Your task to perform on an android device: Search for a custom made wallet on Etsy Image 0: 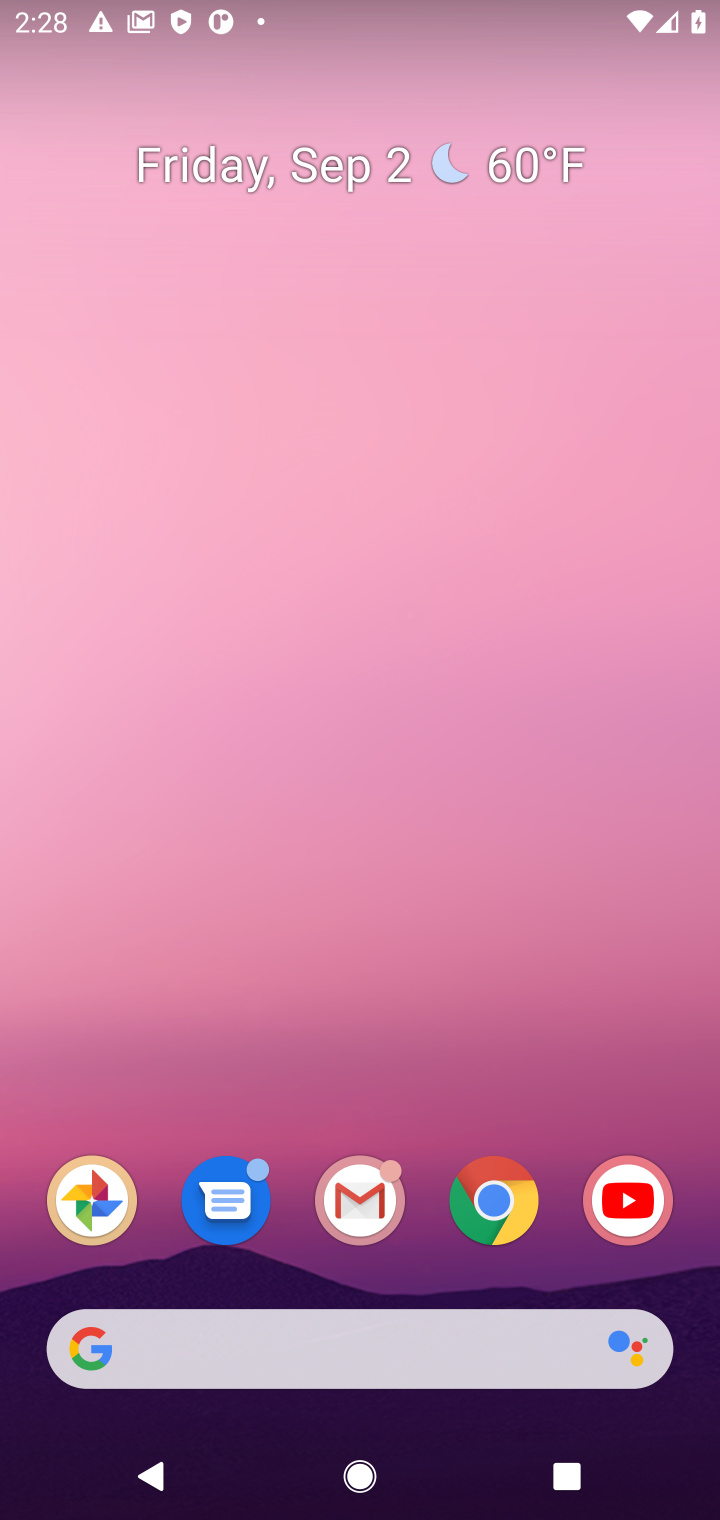
Step 0: click (495, 1199)
Your task to perform on an android device: Search for a custom made wallet on Etsy Image 1: 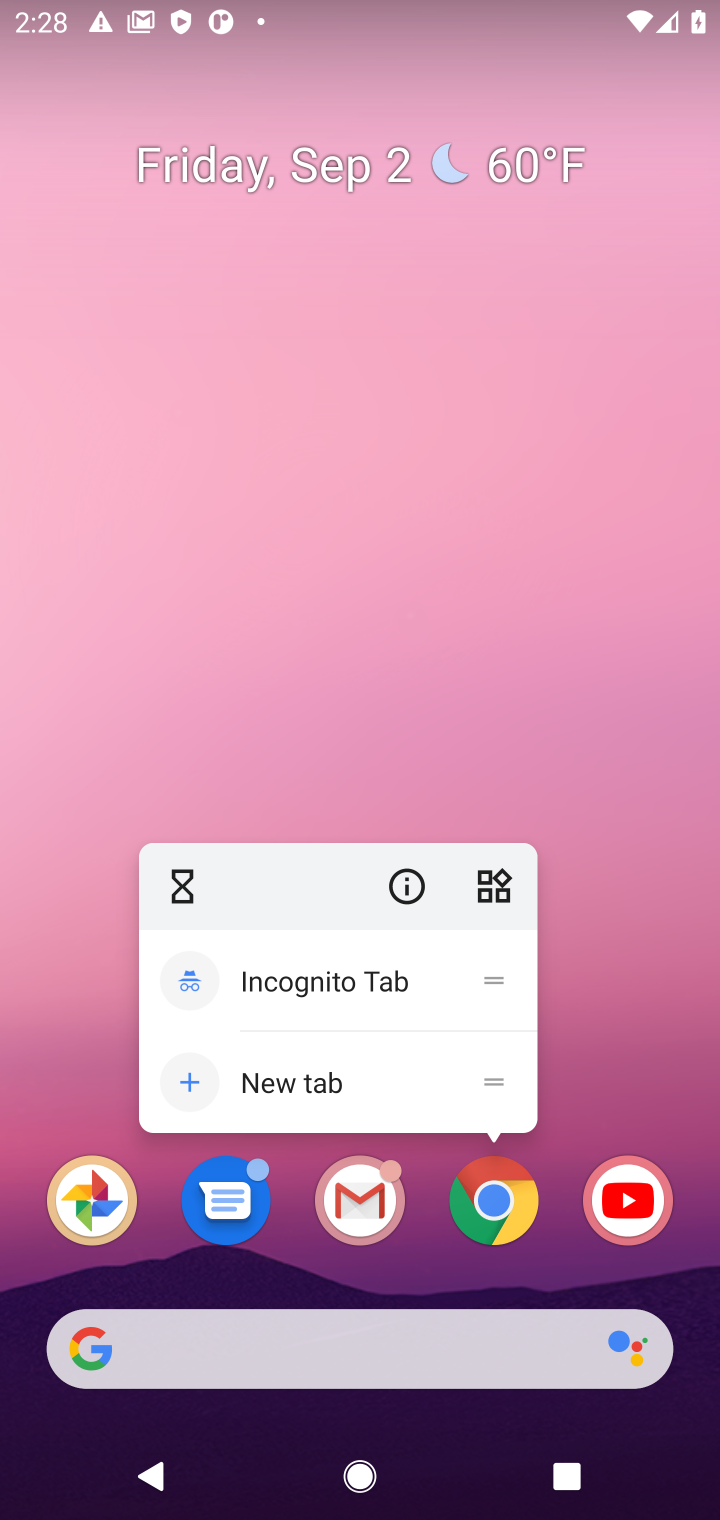
Step 1: click (495, 1207)
Your task to perform on an android device: Search for a custom made wallet on Etsy Image 2: 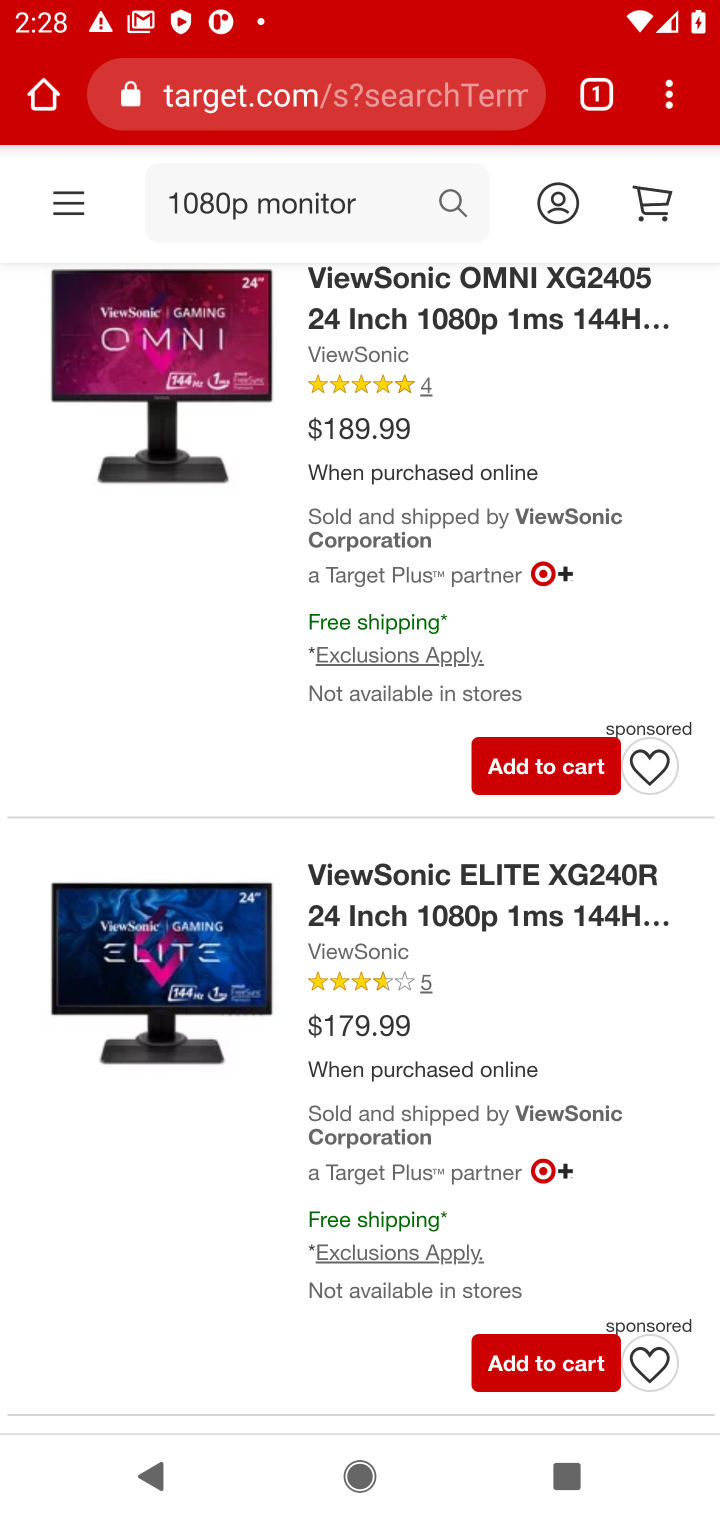
Step 2: click (406, 100)
Your task to perform on an android device: Search for a custom made wallet on Etsy Image 3: 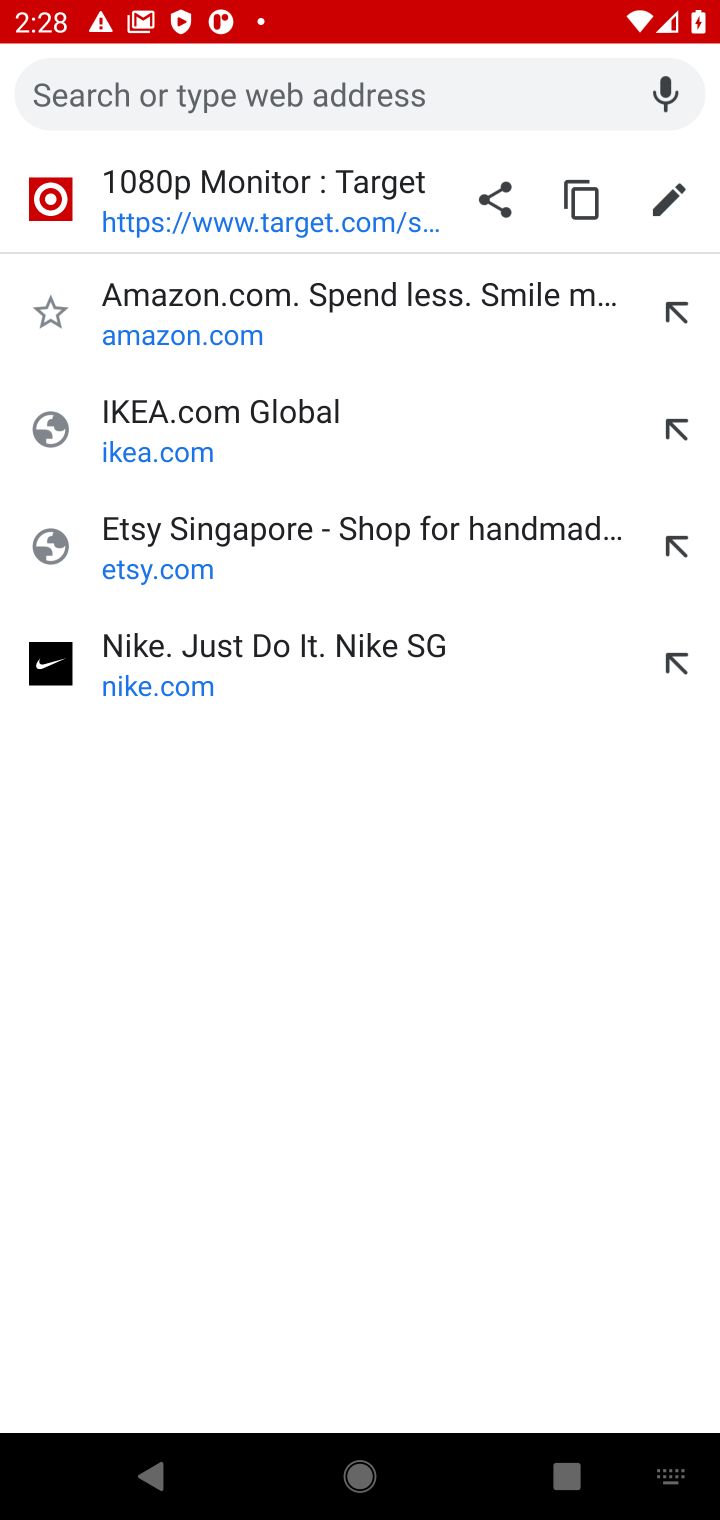
Step 3: type "Etsy"
Your task to perform on an android device: Search for a custom made wallet on Etsy Image 4: 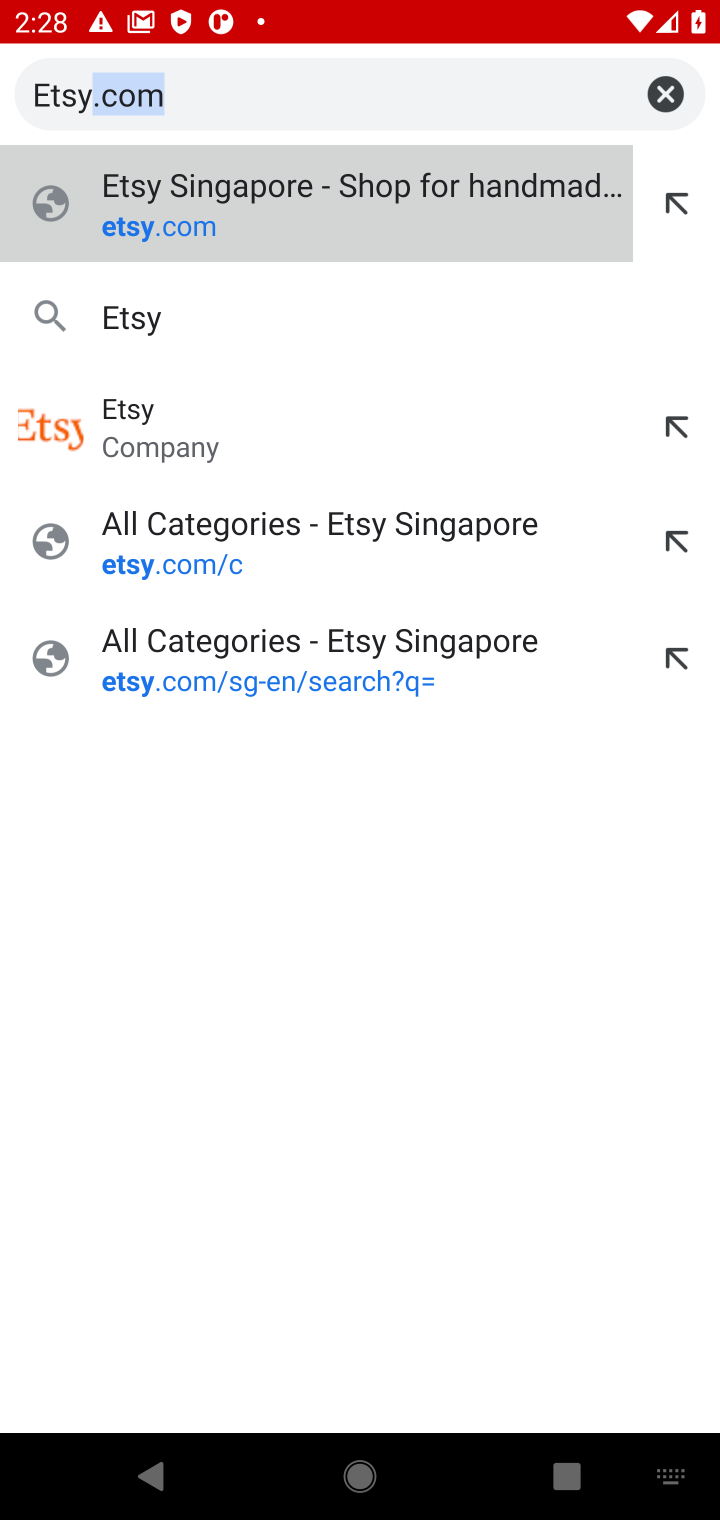
Step 4: press enter
Your task to perform on an android device: Search for a custom made wallet on Etsy Image 5: 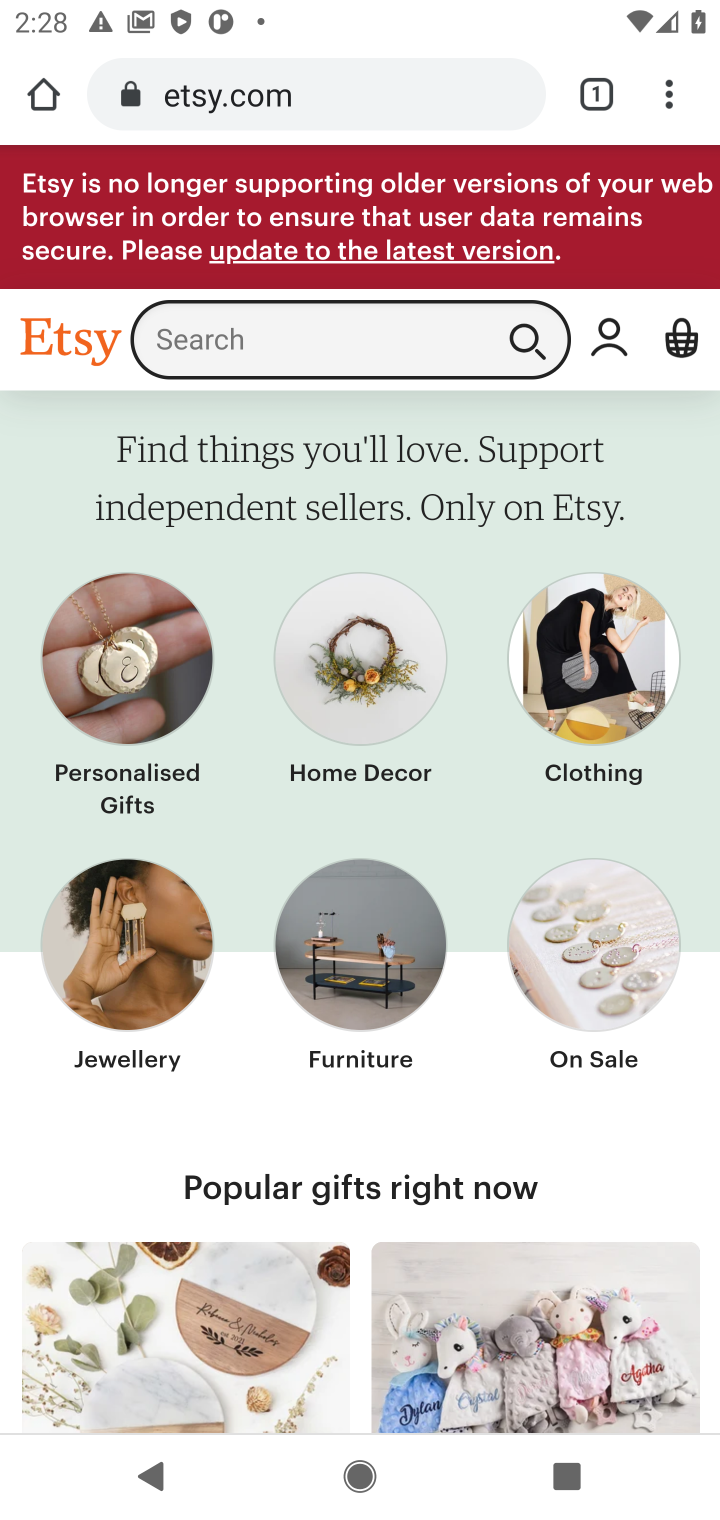
Step 5: click (330, 315)
Your task to perform on an android device: Search for a custom made wallet on Etsy Image 6: 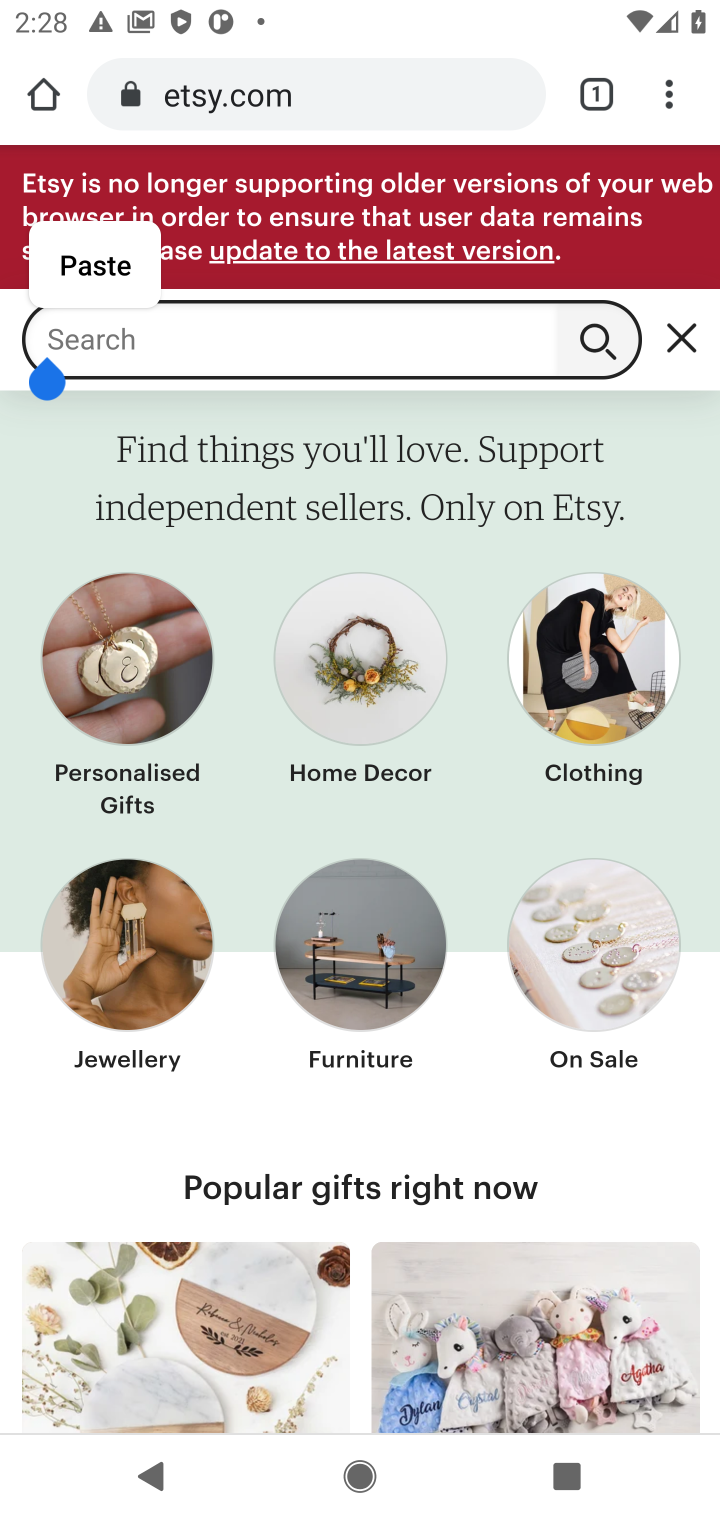
Step 6: press enter
Your task to perform on an android device: Search for a custom made wallet on Etsy Image 7: 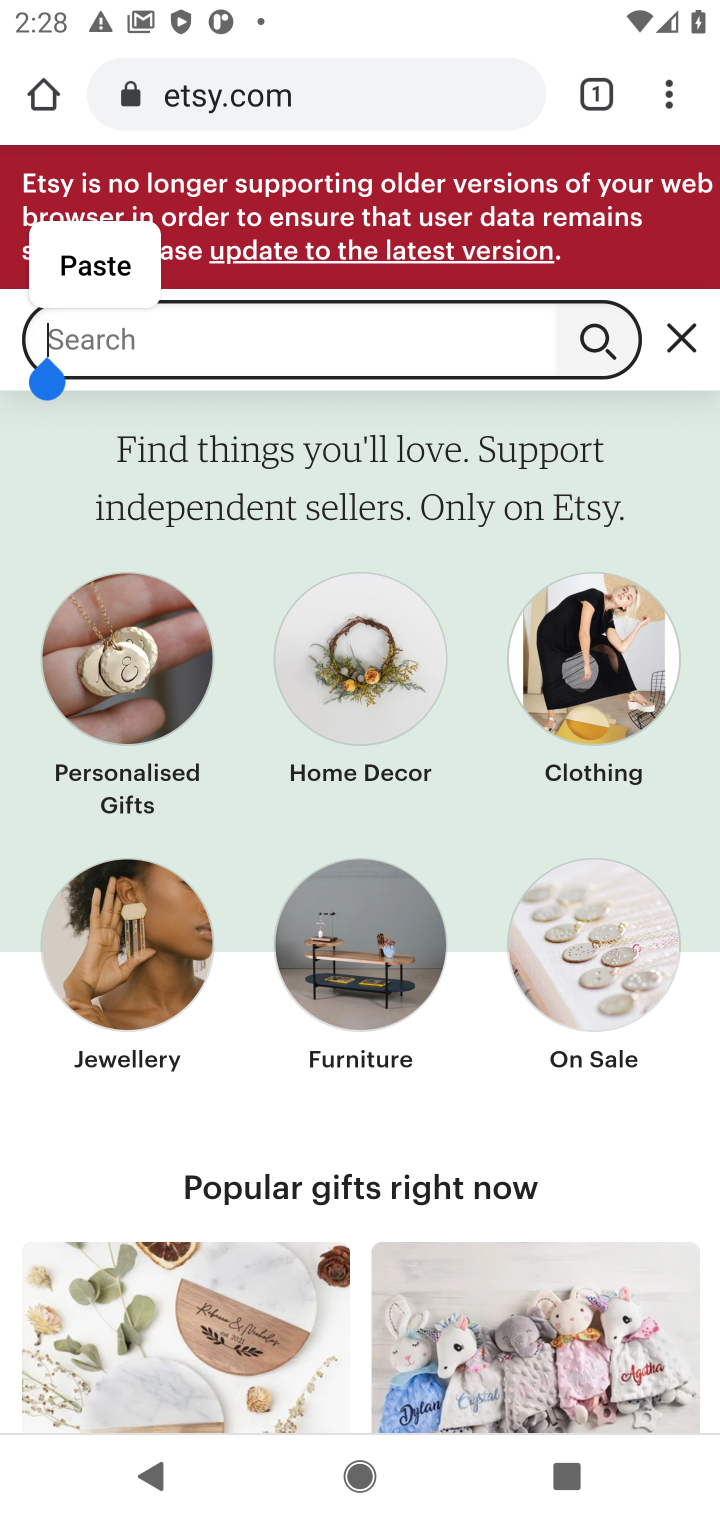
Step 7: type " custom made wallet"
Your task to perform on an android device: Search for a custom made wallet on Etsy Image 8: 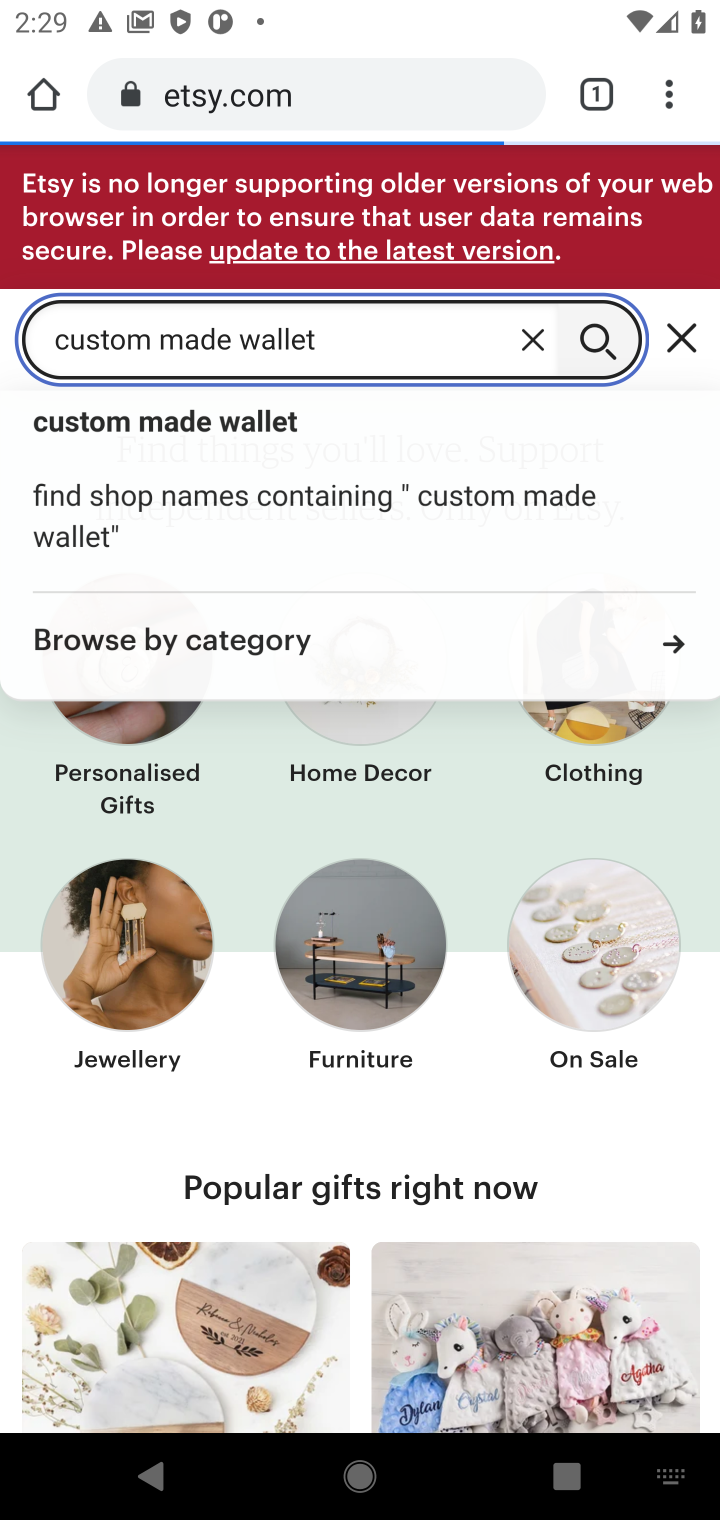
Step 8: click (601, 330)
Your task to perform on an android device: Search for a custom made wallet on Etsy Image 9: 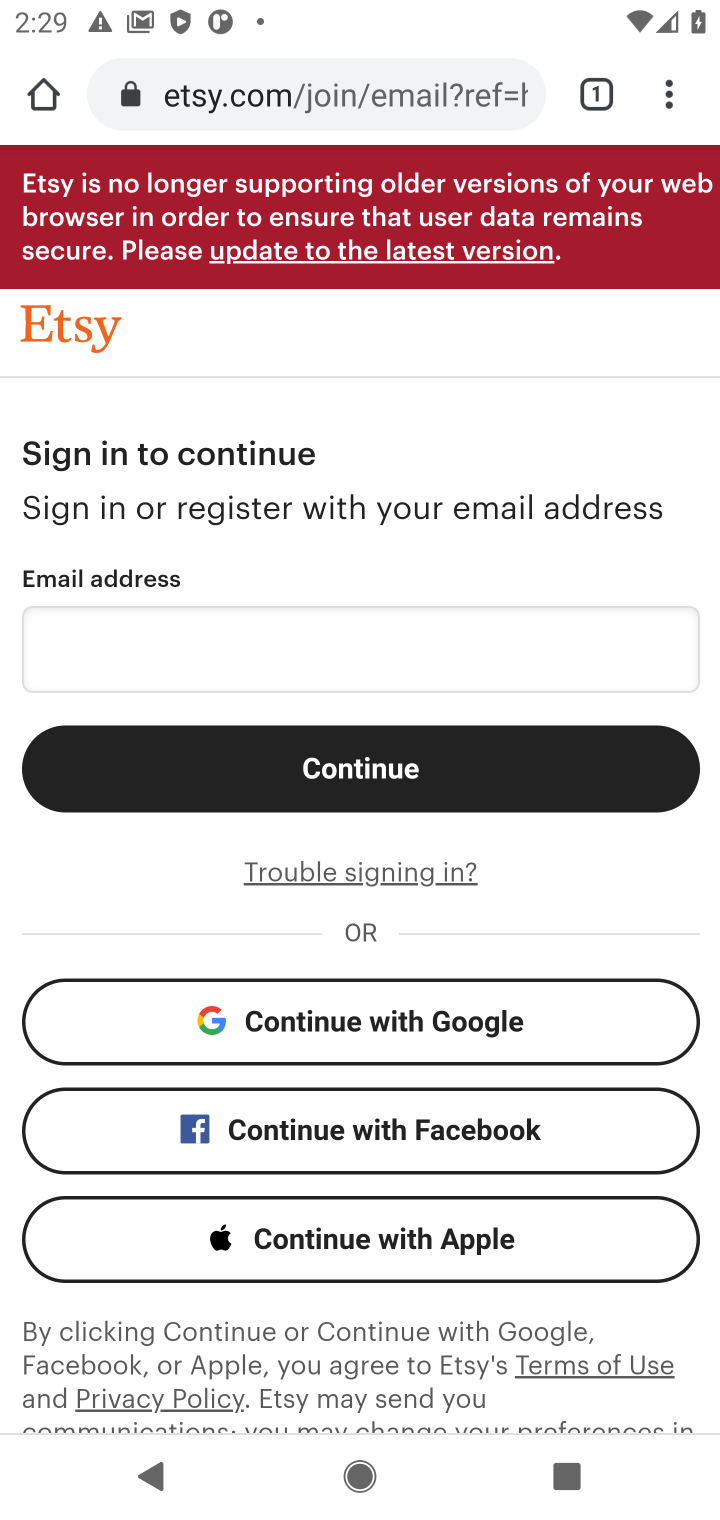
Step 9: press back button
Your task to perform on an android device: Search for a custom made wallet on Etsy Image 10: 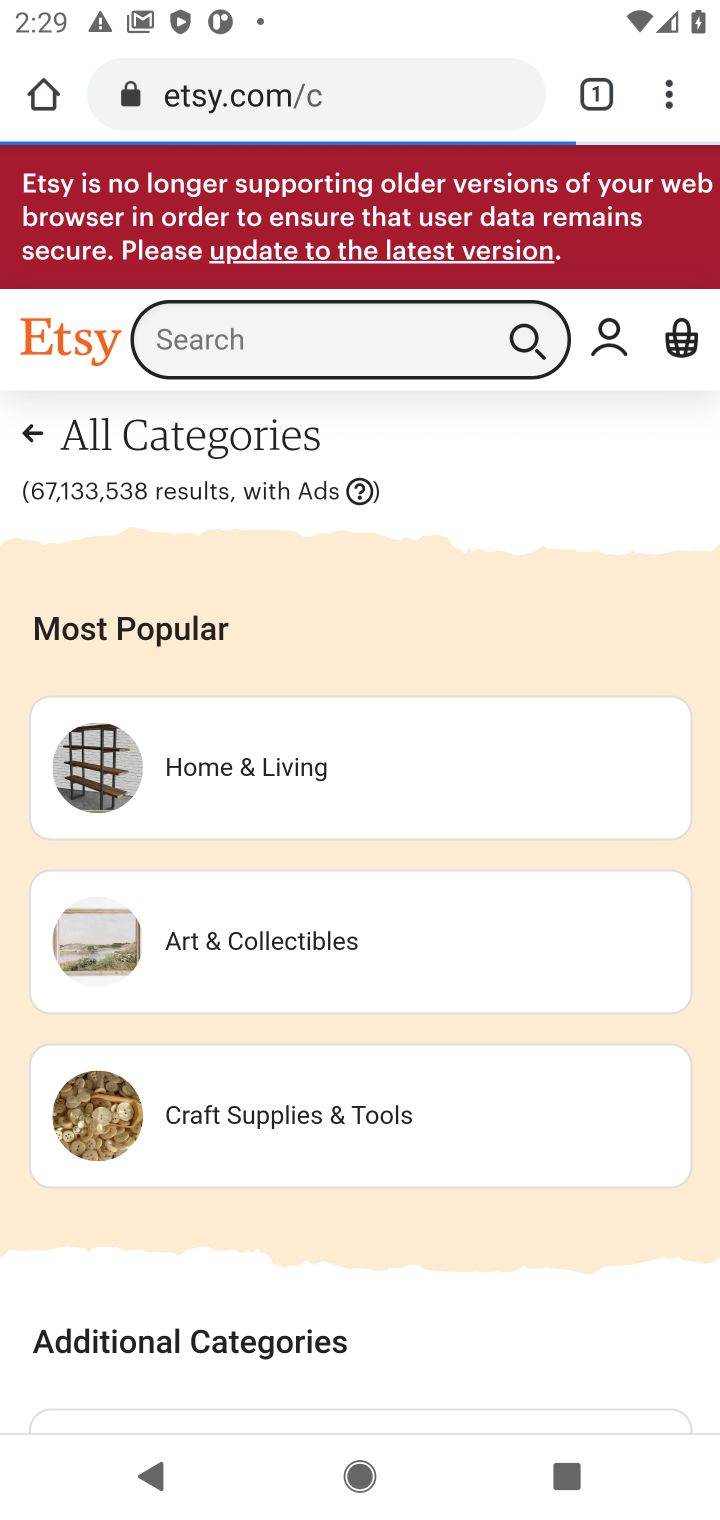
Step 10: click (331, 341)
Your task to perform on an android device: Search for a custom made wallet on Etsy Image 11: 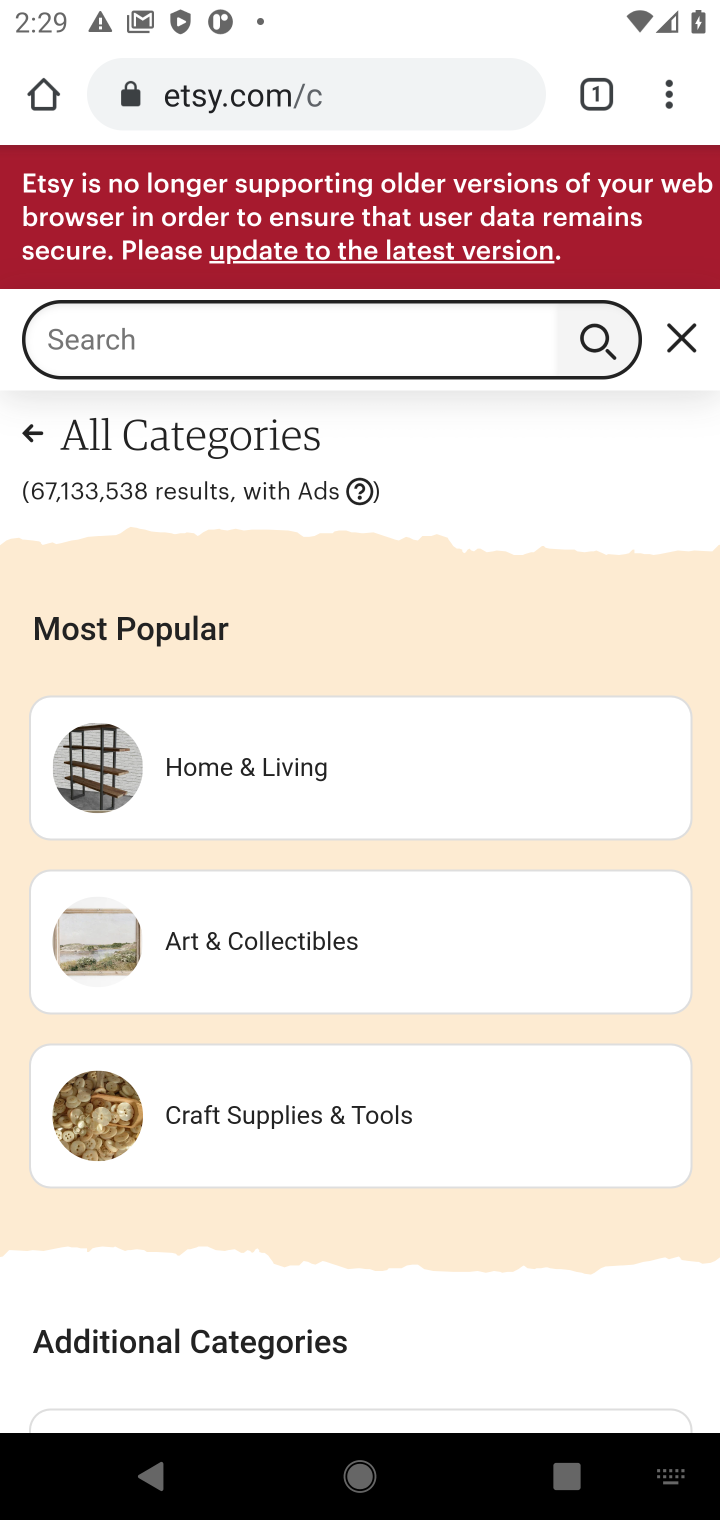
Step 11: type " custom made wallet"
Your task to perform on an android device: Search for a custom made wallet on Etsy Image 12: 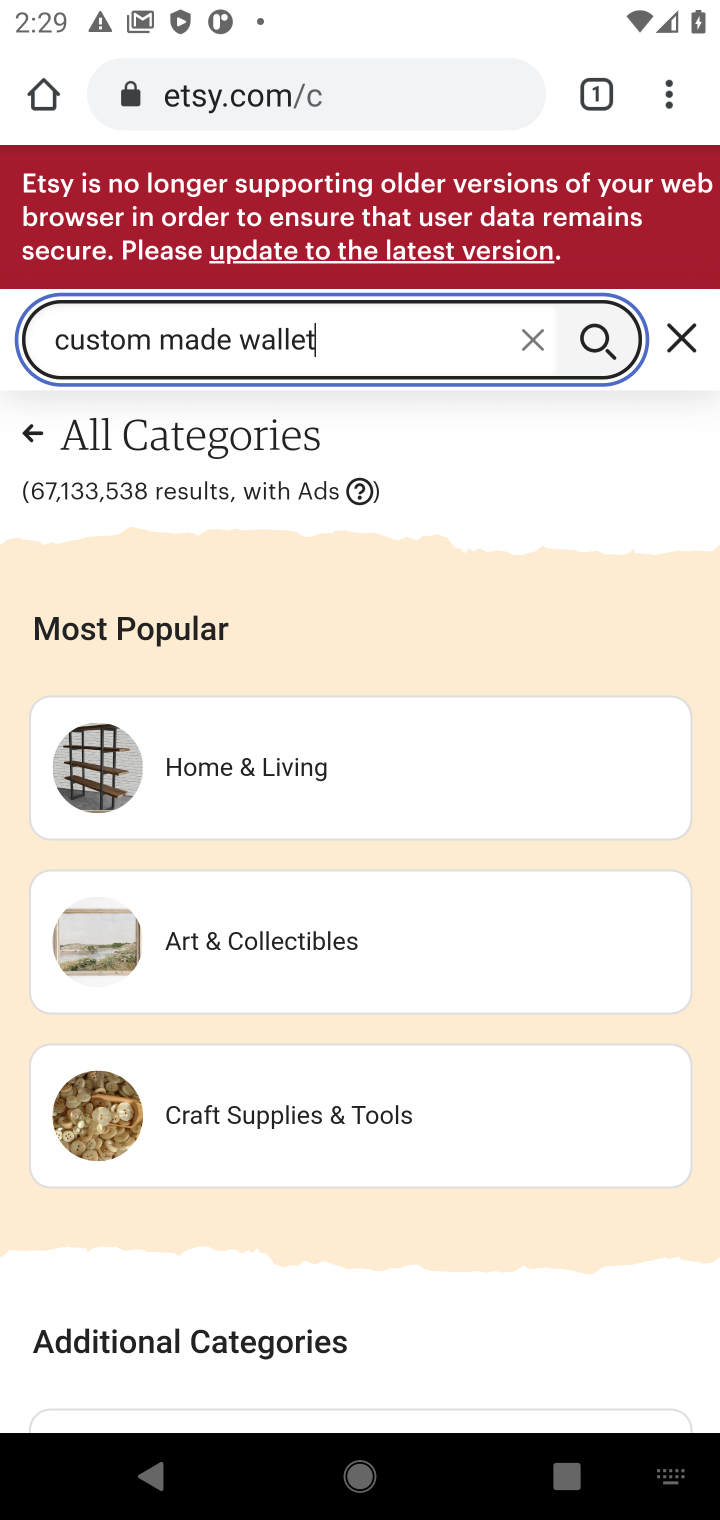
Step 12: press enter
Your task to perform on an android device: Search for a custom made wallet on Etsy Image 13: 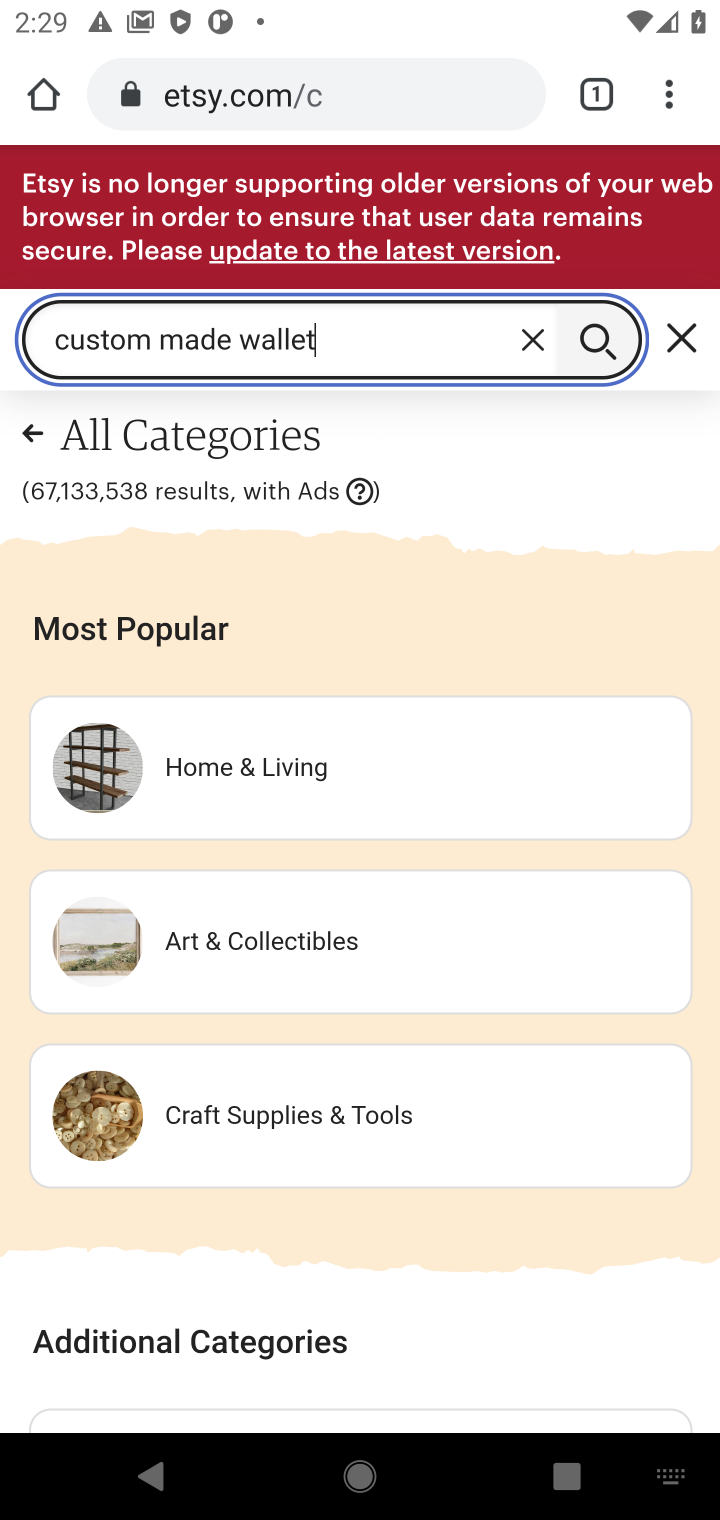
Step 13: click (592, 325)
Your task to perform on an android device: Search for a custom made wallet on Etsy Image 14: 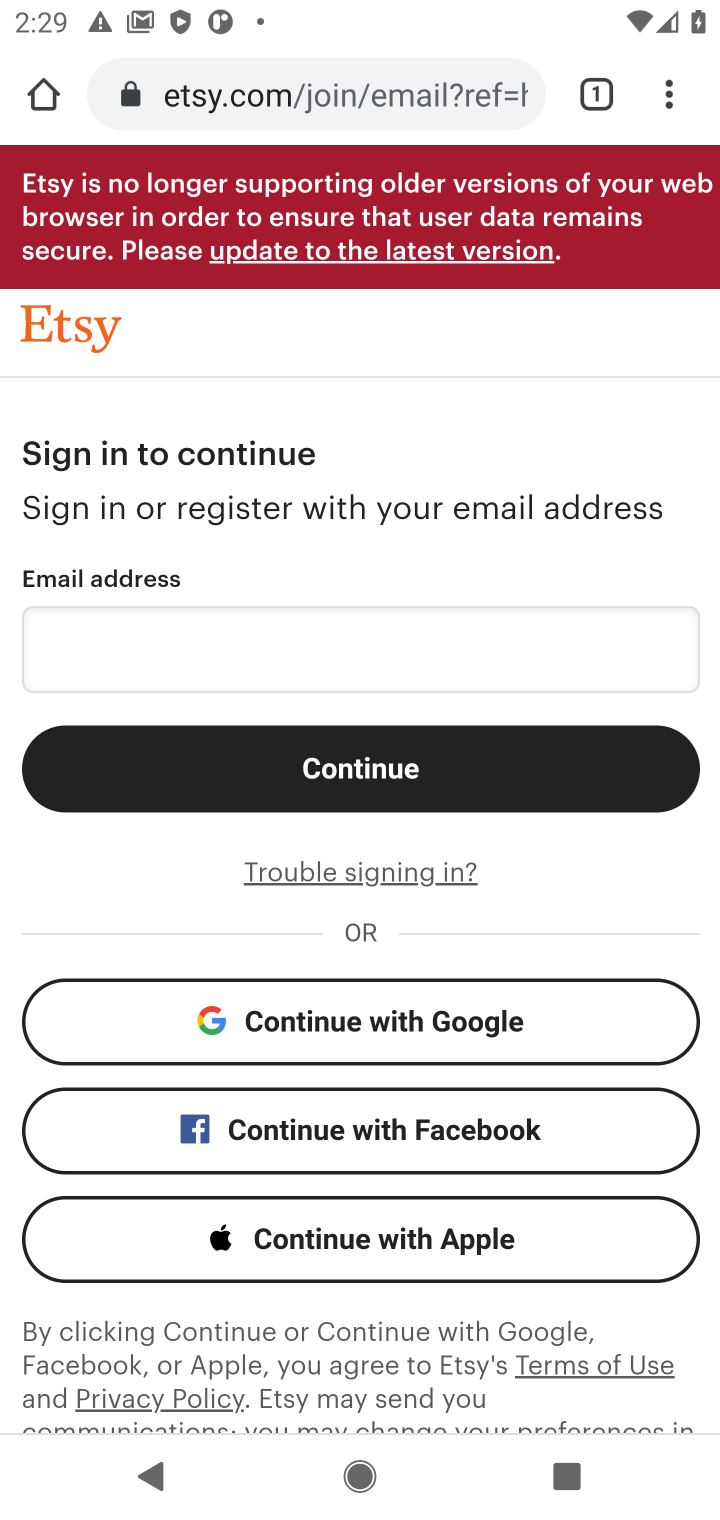
Step 14: task complete